Your task to perform on an android device: uninstall "Nova Launcher" Image 0: 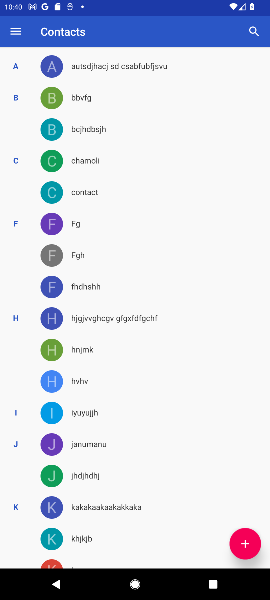
Step 0: press home button
Your task to perform on an android device: uninstall "Nova Launcher" Image 1: 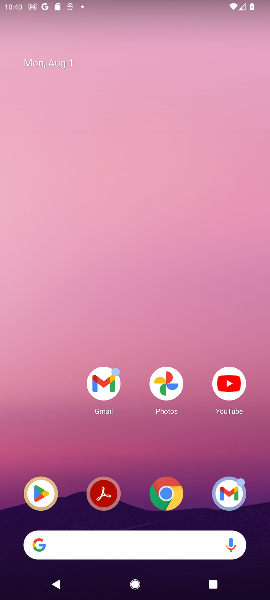
Step 1: click (47, 507)
Your task to perform on an android device: uninstall "Nova Launcher" Image 2: 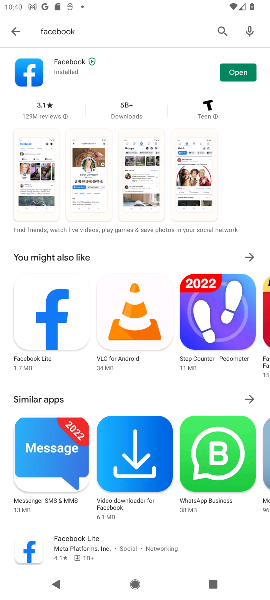
Step 2: click (218, 33)
Your task to perform on an android device: uninstall "Nova Launcher" Image 3: 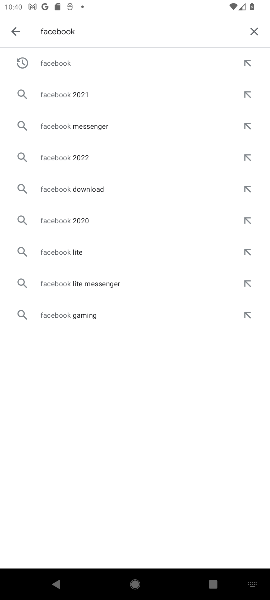
Step 3: click (249, 36)
Your task to perform on an android device: uninstall "Nova Launcher" Image 4: 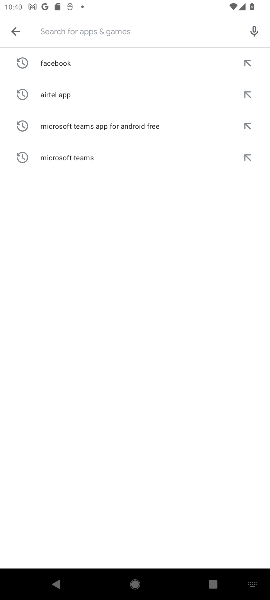
Step 4: type "nova launcher"
Your task to perform on an android device: uninstall "Nova Launcher" Image 5: 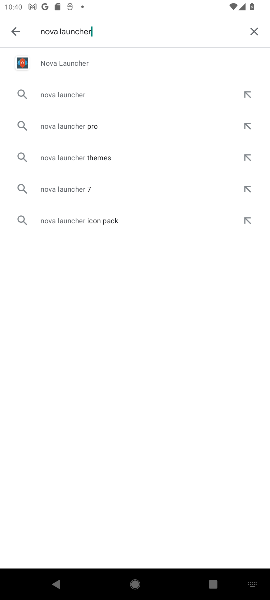
Step 5: click (247, 67)
Your task to perform on an android device: uninstall "Nova Launcher" Image 6: 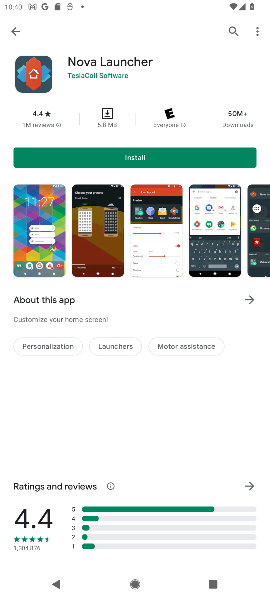
Step 6: task complete